Your task to perform on an android device: Open calendar and show me the second week of next month Image 0: 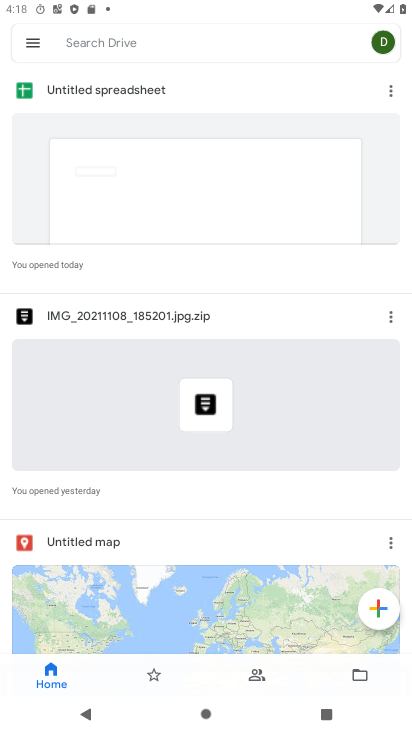
Step 0: press home button
Your task to perform on an android device: Open calendar and show me the second week of next month Image 1: 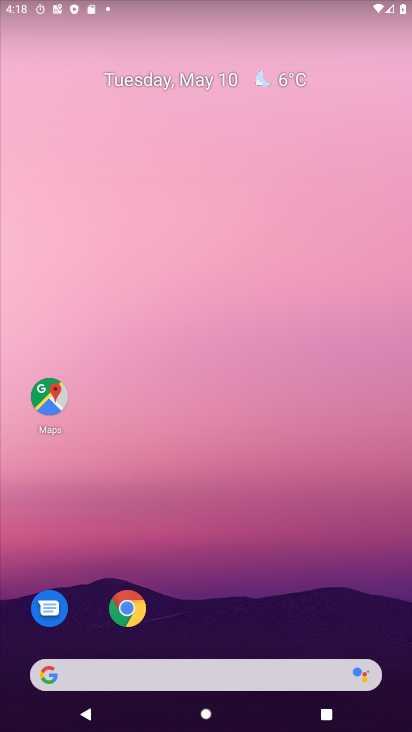
Step 1: drag from (309, 617) to (300, 2)
Your task to perform on an android device: Open calendar and show me the second week of next month Image 2: 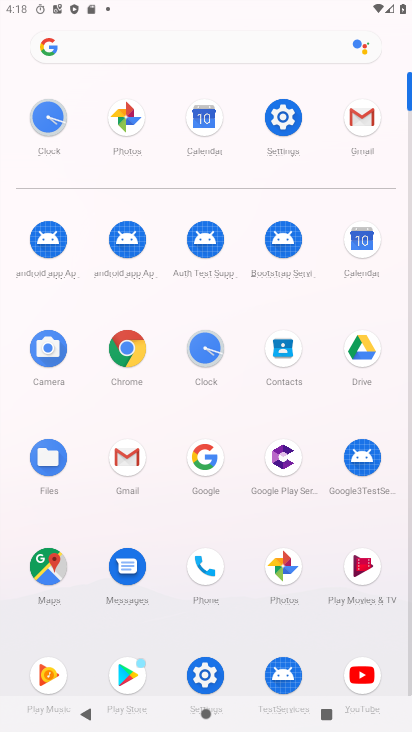
Step 2: click (202, 127)
Your task to perform on an android device: Open calendar and show me the second week of next month Image 3: 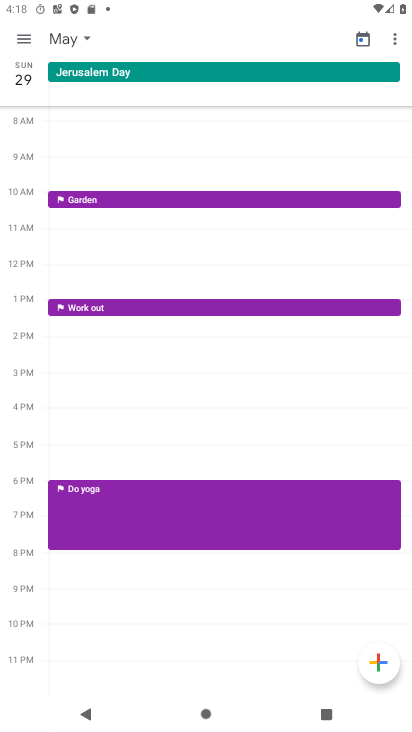
Step 3: click (86, 38)
Your task to perform on an android device: Open calendar and show me the second week of next month Image 4: 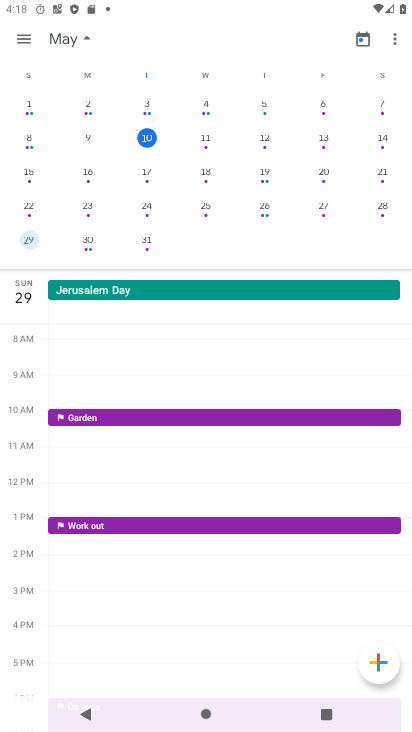
Step 4: drag from (330, 218) to (8, 160)
Your task to perform on an android device: Open calendar and show me the second week of next month Image 5: 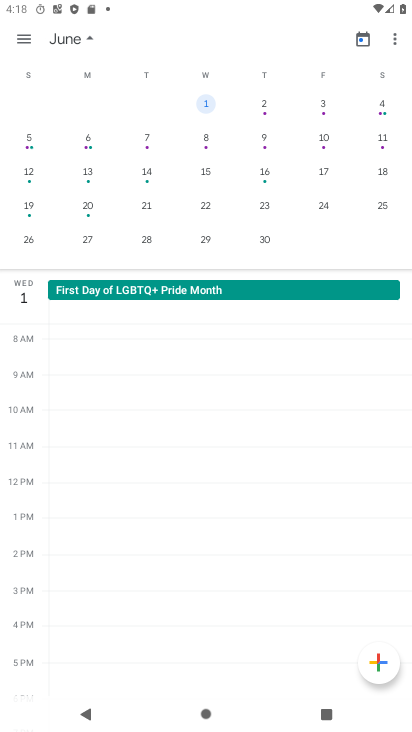
Step 5: click (27, 39)
Your task to perform on an android device: Open calendar and show me the second week of next month Image 6: 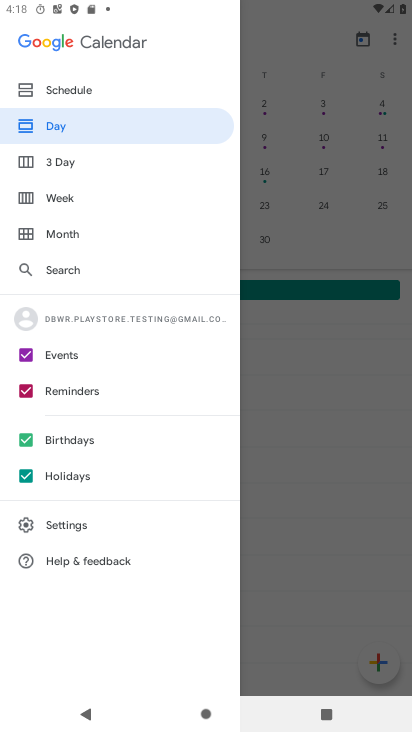
Step 6: click (53, 199)
Your task to perform on an android device: Open calendar and show me the second week of next month Image 7: 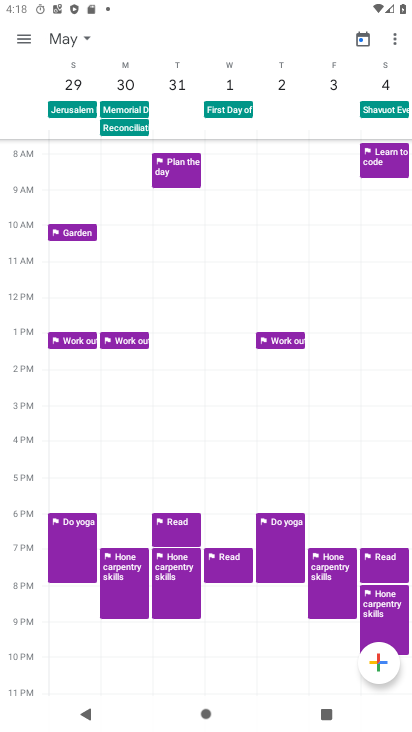
Step 7: task complete